Your task to perform on an android device: turn on notifications settings in the gmail app Image 0: 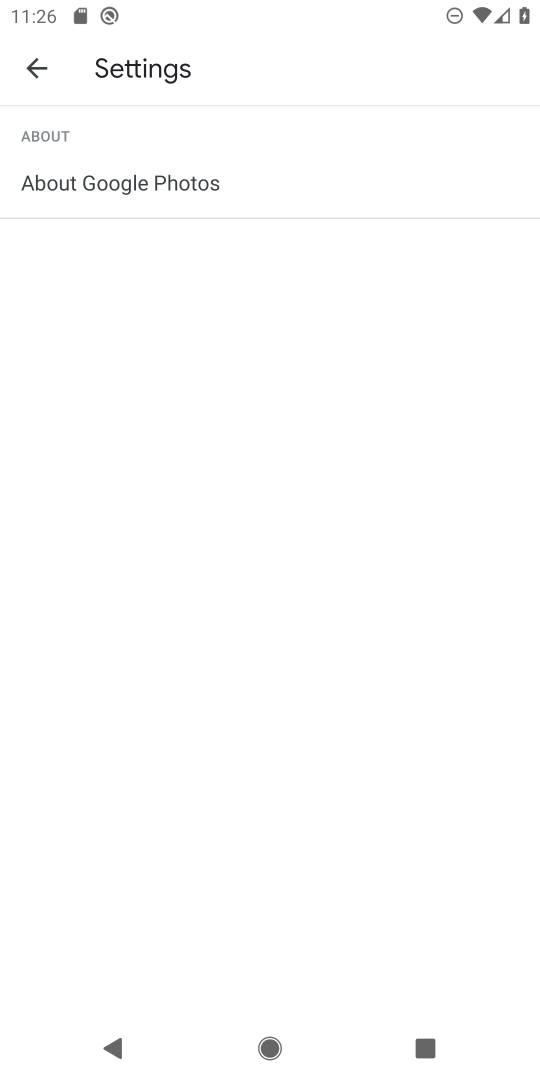
Step 0: press home button
Your task to perform on an android device: turn on notifications settings in the gmail app Image 1: 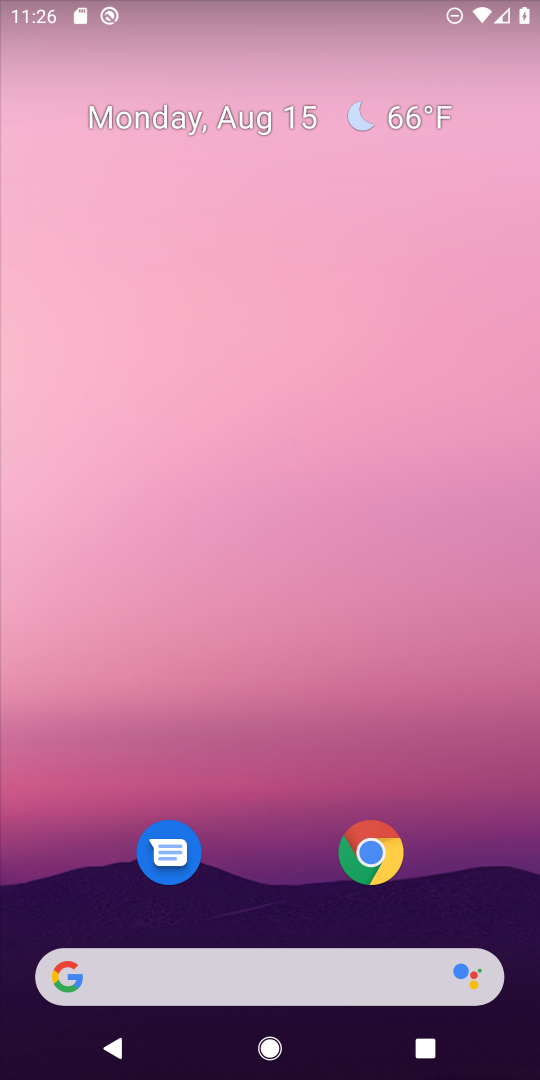
Step 1: drag from (313, 595) to (366, 9)
Your task to perform on an android device: turn on notifications settings in the gmail app Image 2: 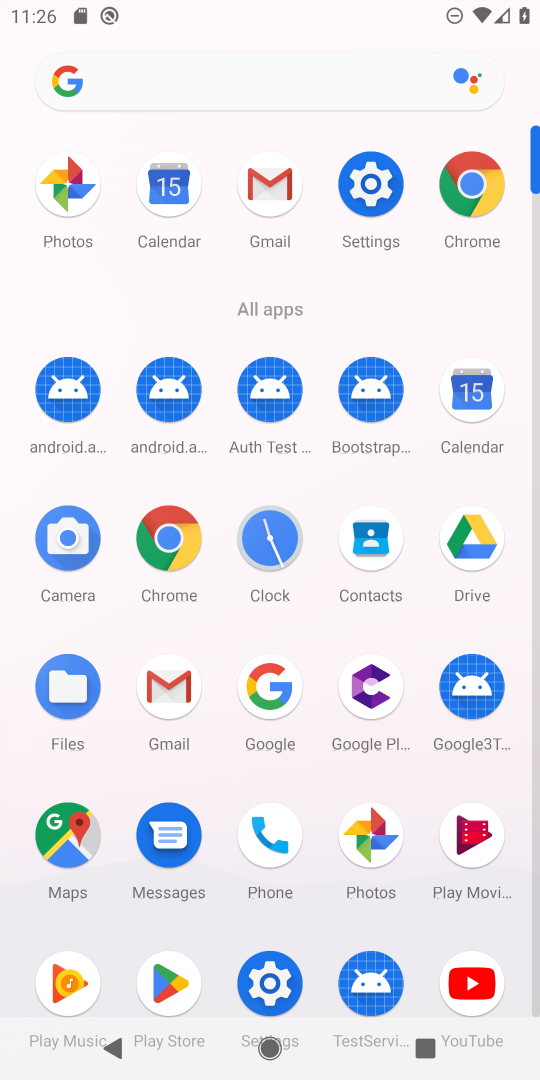
Step 2: click (265, 180)
Your task to perform on an android device: turn on notifications settings in the gmail app Image 3: 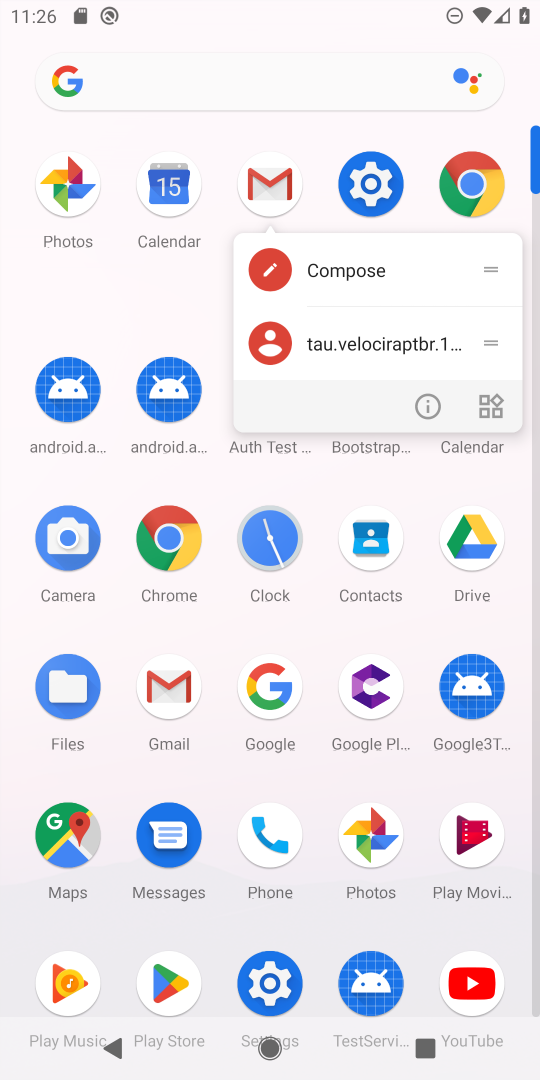
Step 3: click (421, 410)
Your task to perform on an android device: turn on notifications settings in the gmail app Image 4: 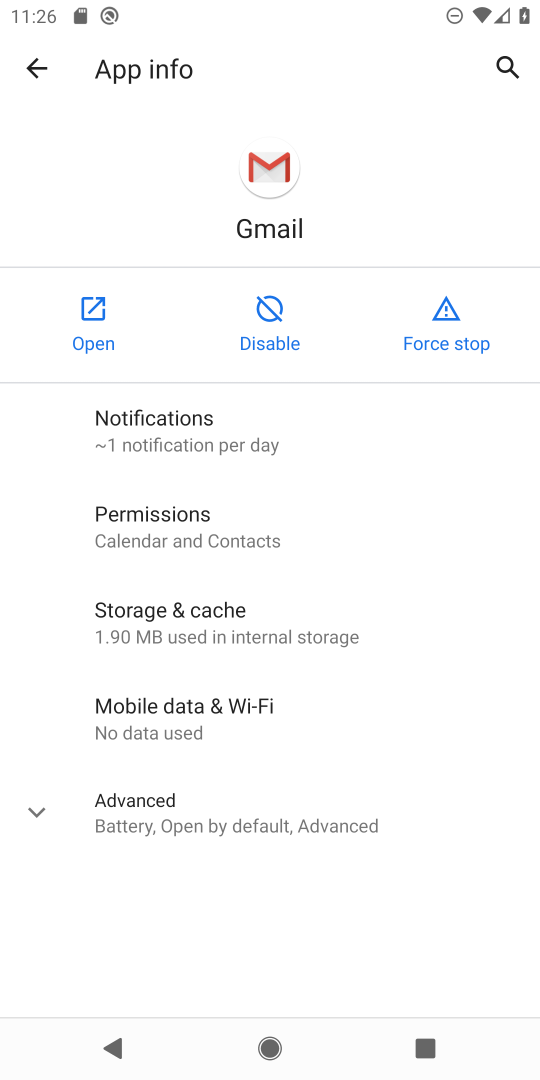
Step 4: click (265, 435)
Your task to perform on an android device: turn on notifications settings in the gmail app Image 5: 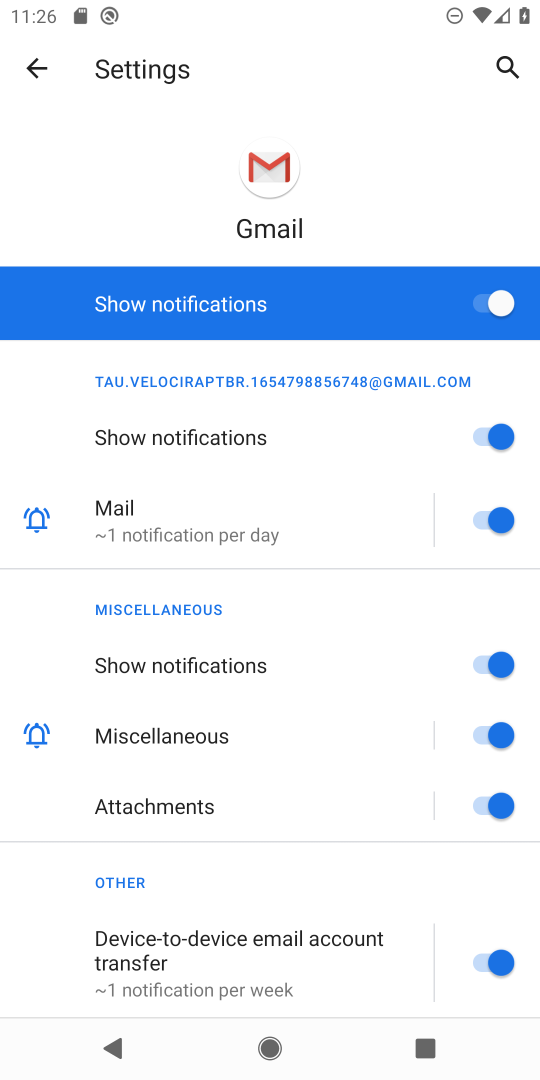
Step 5: task complete